Your task to perform on an android device: change notifications settings Image 0: 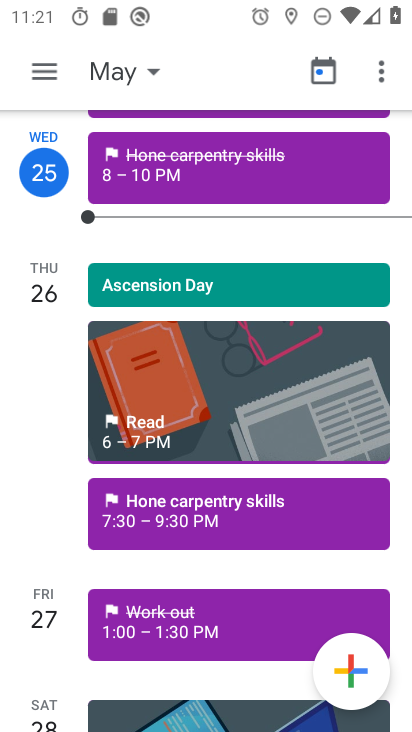
Step 0: press home button
Your task to perform on an android device: change notifications settings Image 1: 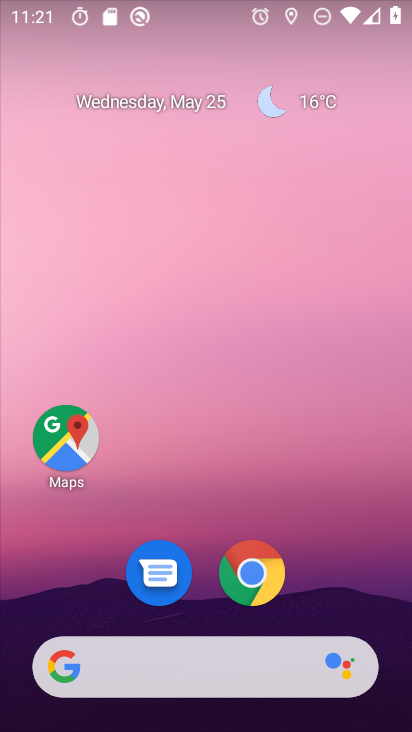
Step 1: drag from (316, 618) to (369, 7)
Your task to perform on an android device: change notifications settings Image 2: 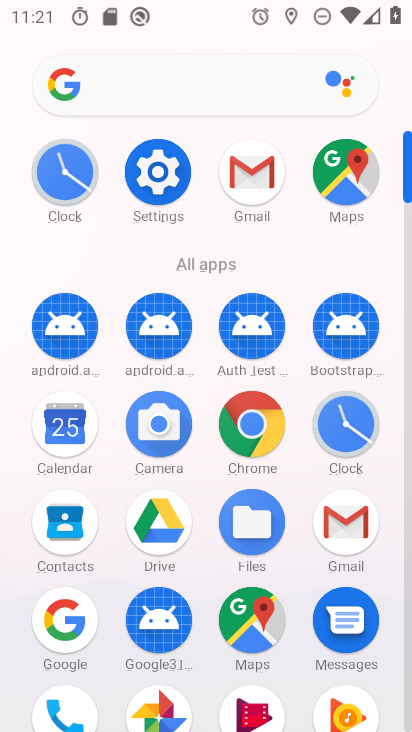
Step 2: click (160, 179)
Your task to perform on an android device: change notifications settings Image 3: 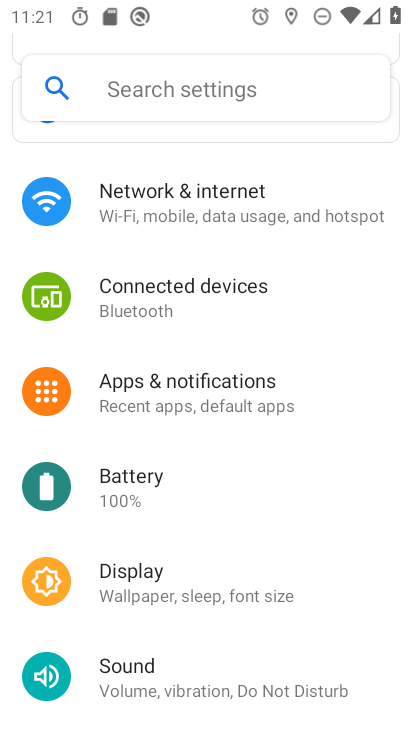
Step 3: click (198, 403)
Your task to perform on an android device: change notifications settings Image 4: 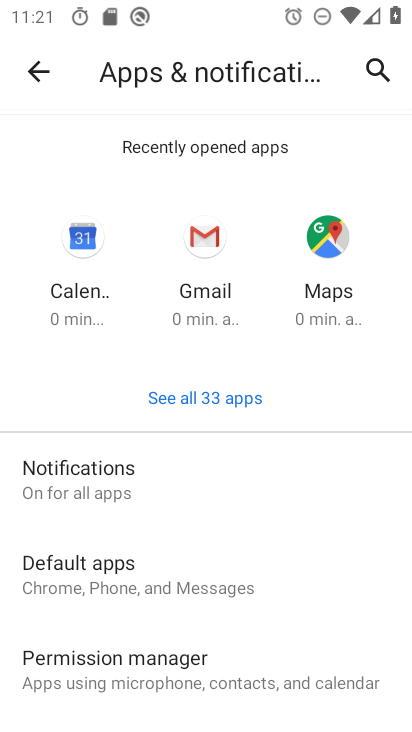
Step 4: task complete